Your task to perform on an android device: When is my next meeting? Image 0: 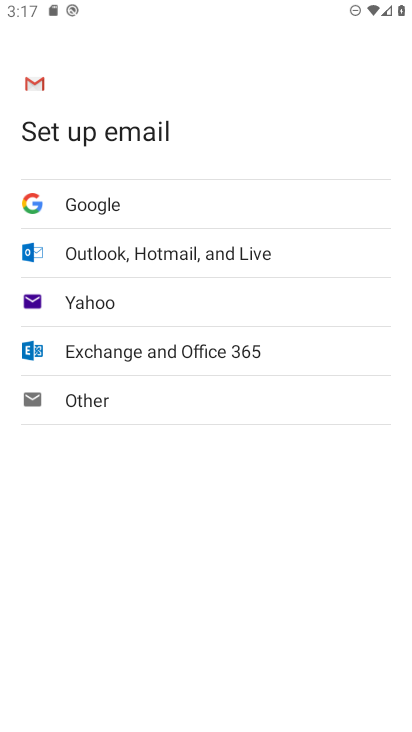
Step 0: press back button
Your task to perform on an android device: When is my next meeting? Image 1: 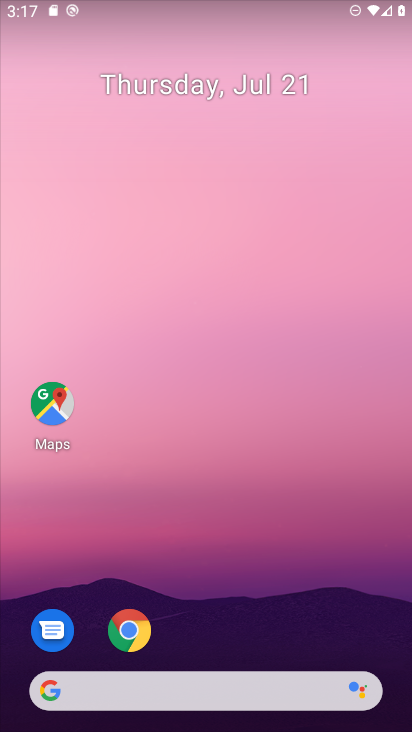
Step 1: drag from (191, 645) to (328, 13)
Your task to perform on an android device: When is my next meeting? Image 2: 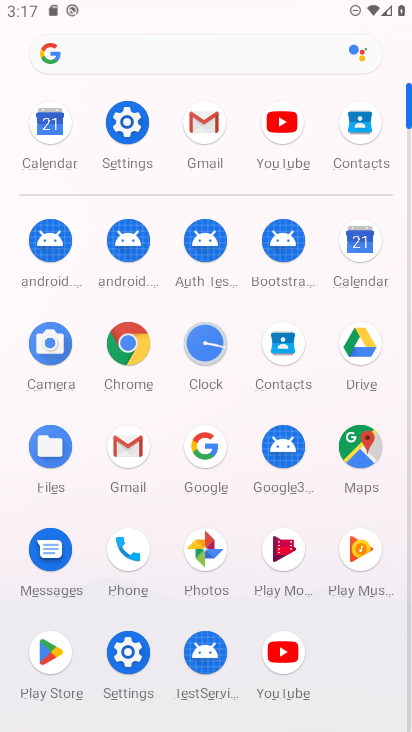
Step 2: click (360, 254)
Your task to perform on an android device: When is my next meeting? Image 3: 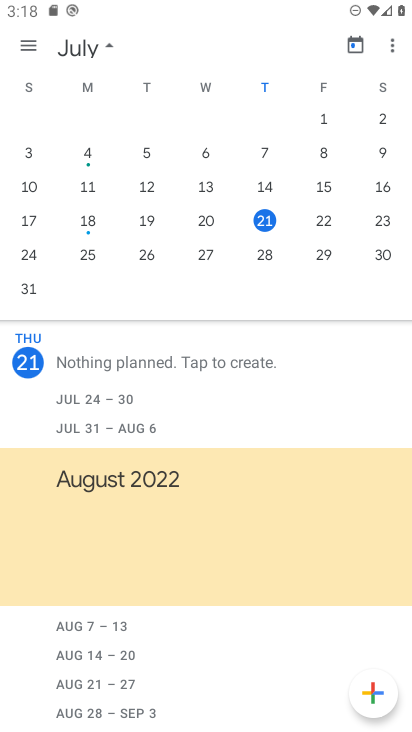
Step 3: task complete